Your task to perform on an android device: check battery use Image 0: 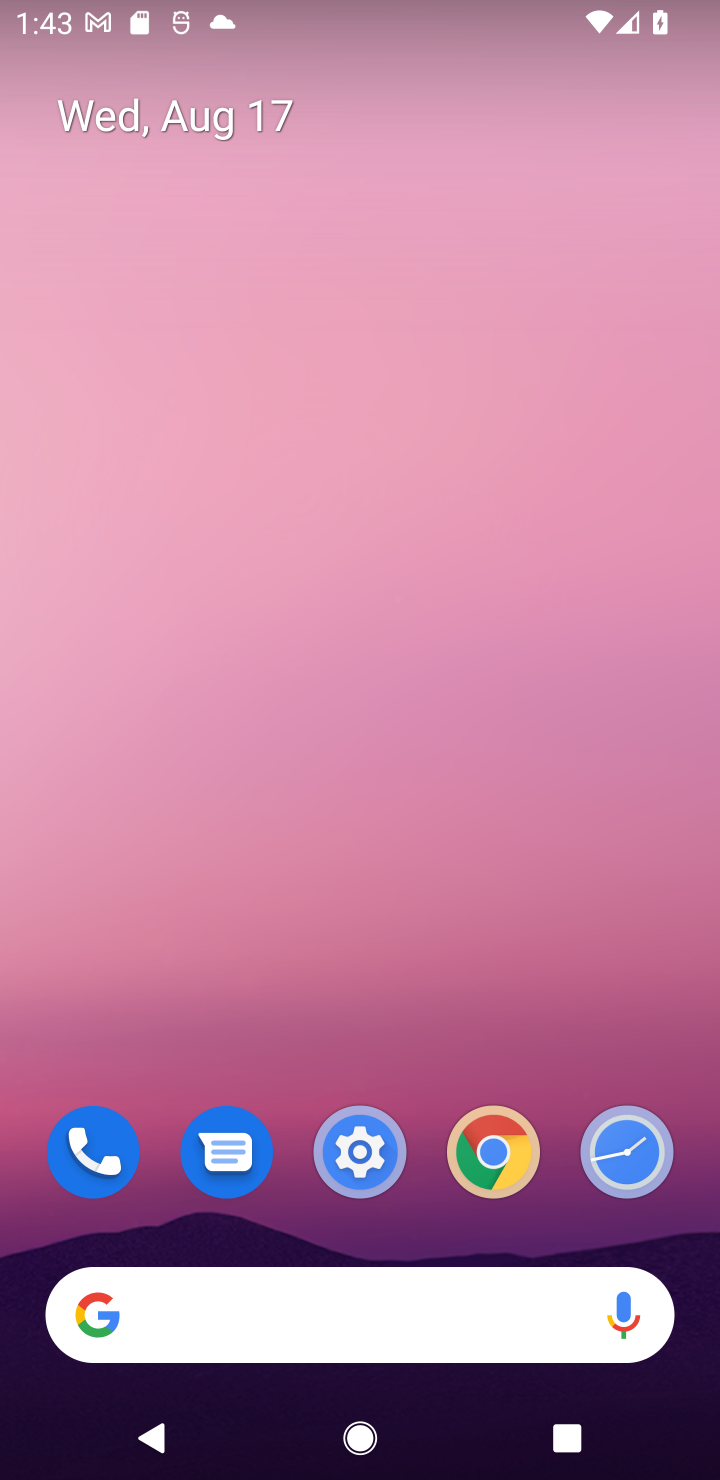
Step 0: drag from (577, 1226) to (105, 88)
Your task to perform on an android device: check battery use Image 1: 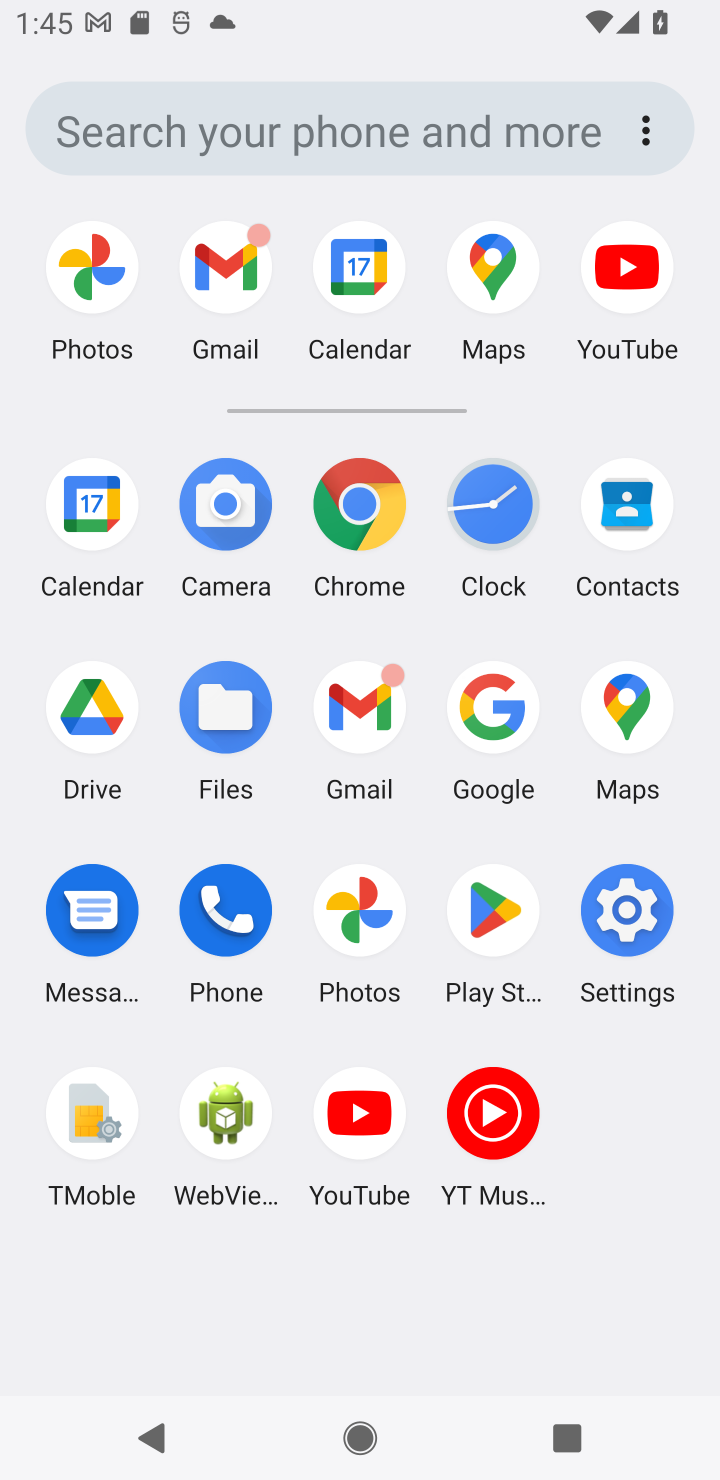
Step 1: click (646, 930)
Your task to perform on an android device: check battery use Image 2: 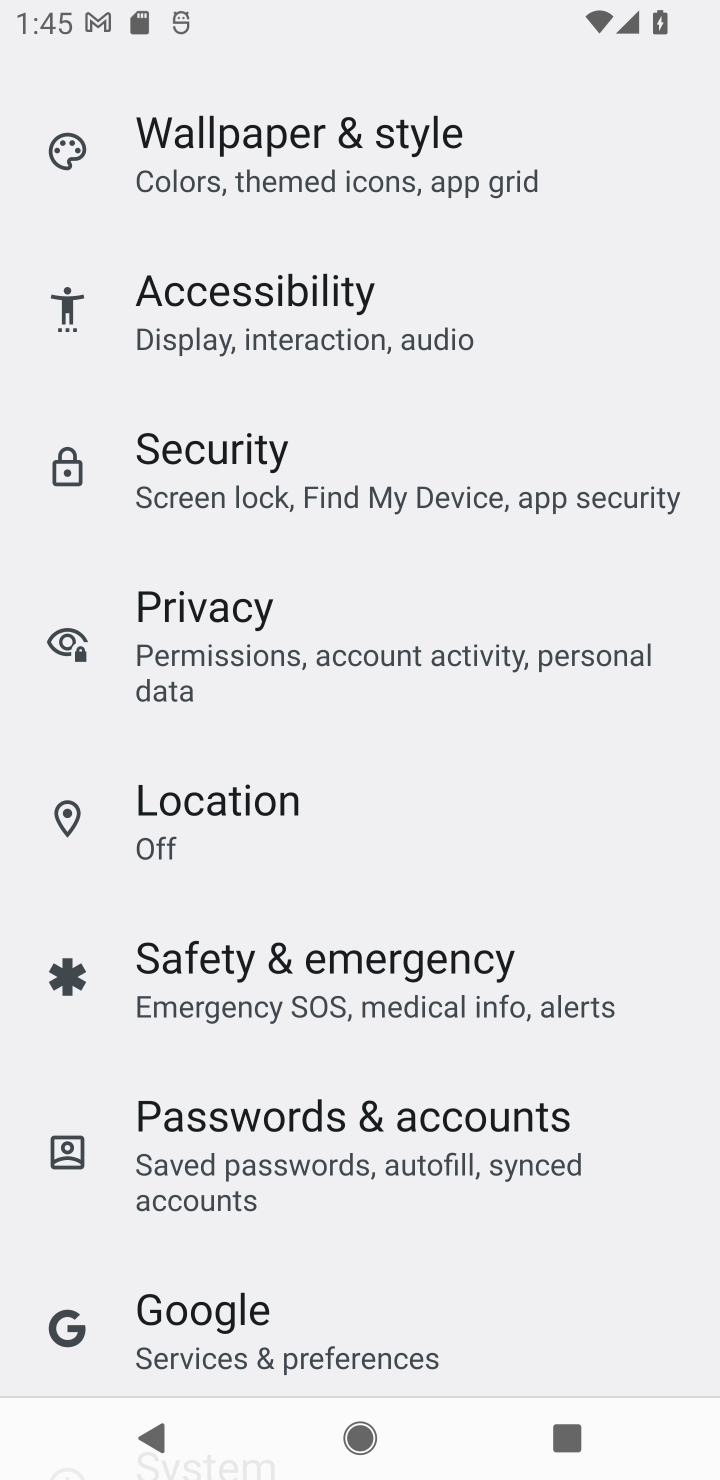
Step 2: drag from (278, 227) to (332, 1258)
Your task to perform on an android device: check battery use Image 3: 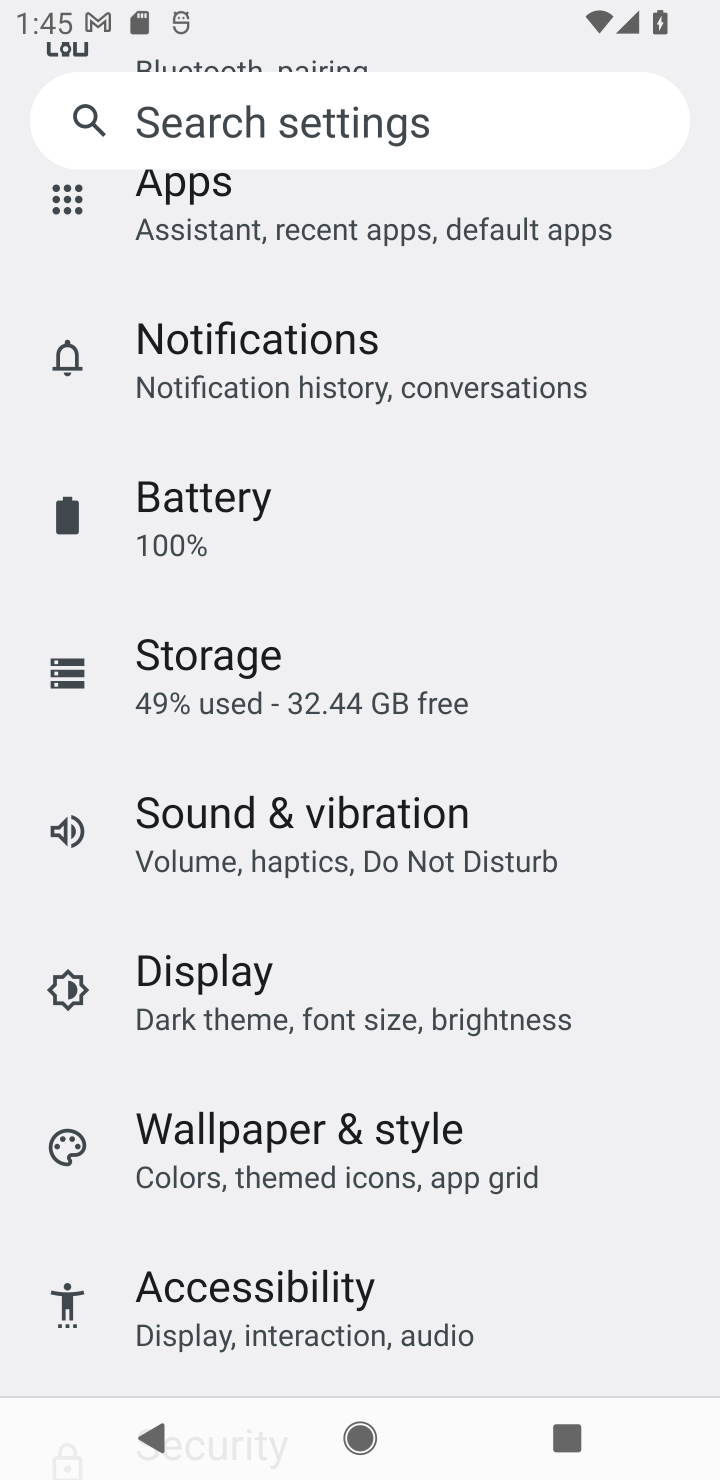
Step 3: click (198, 556)
Your task to perform on an android device: check battery use Image 4: 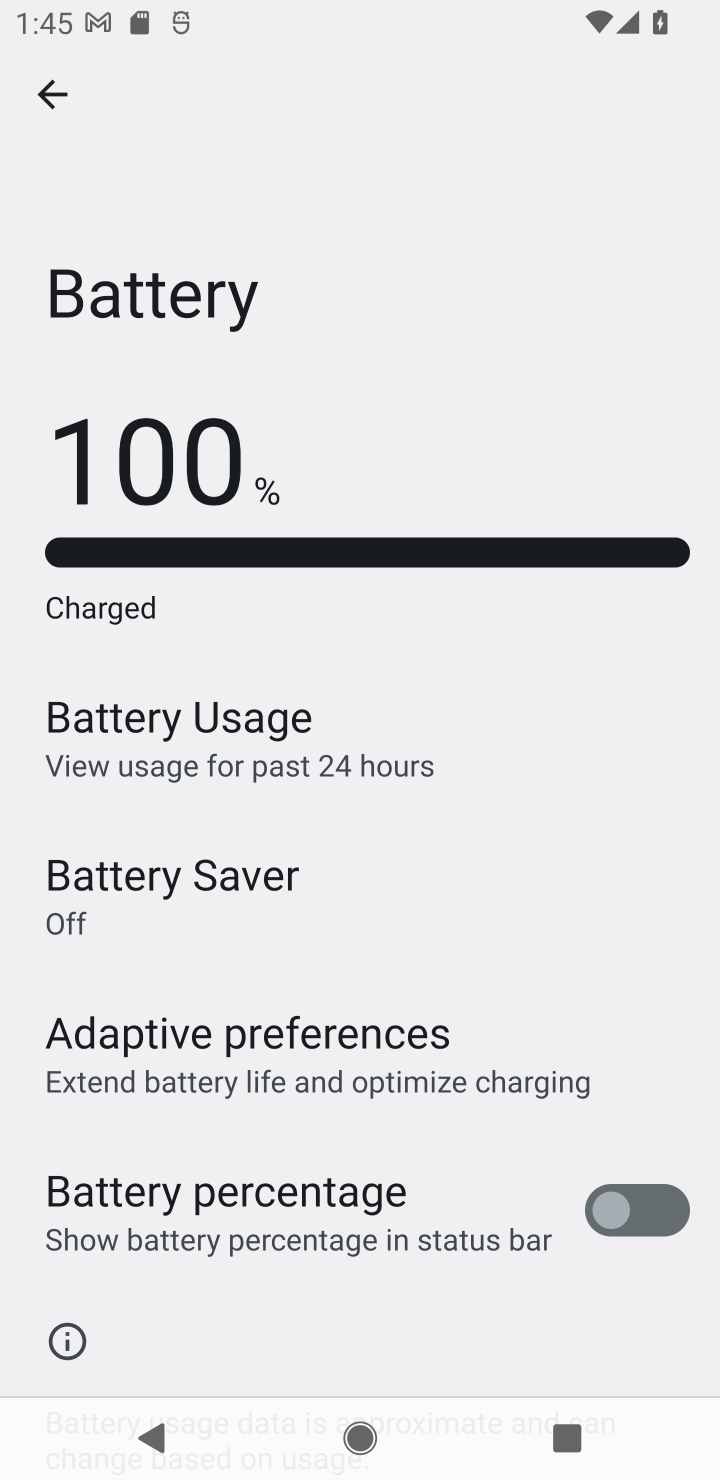
Step 4: click (334, 740)
Your task to perform on an android device: check battery use Image 5: 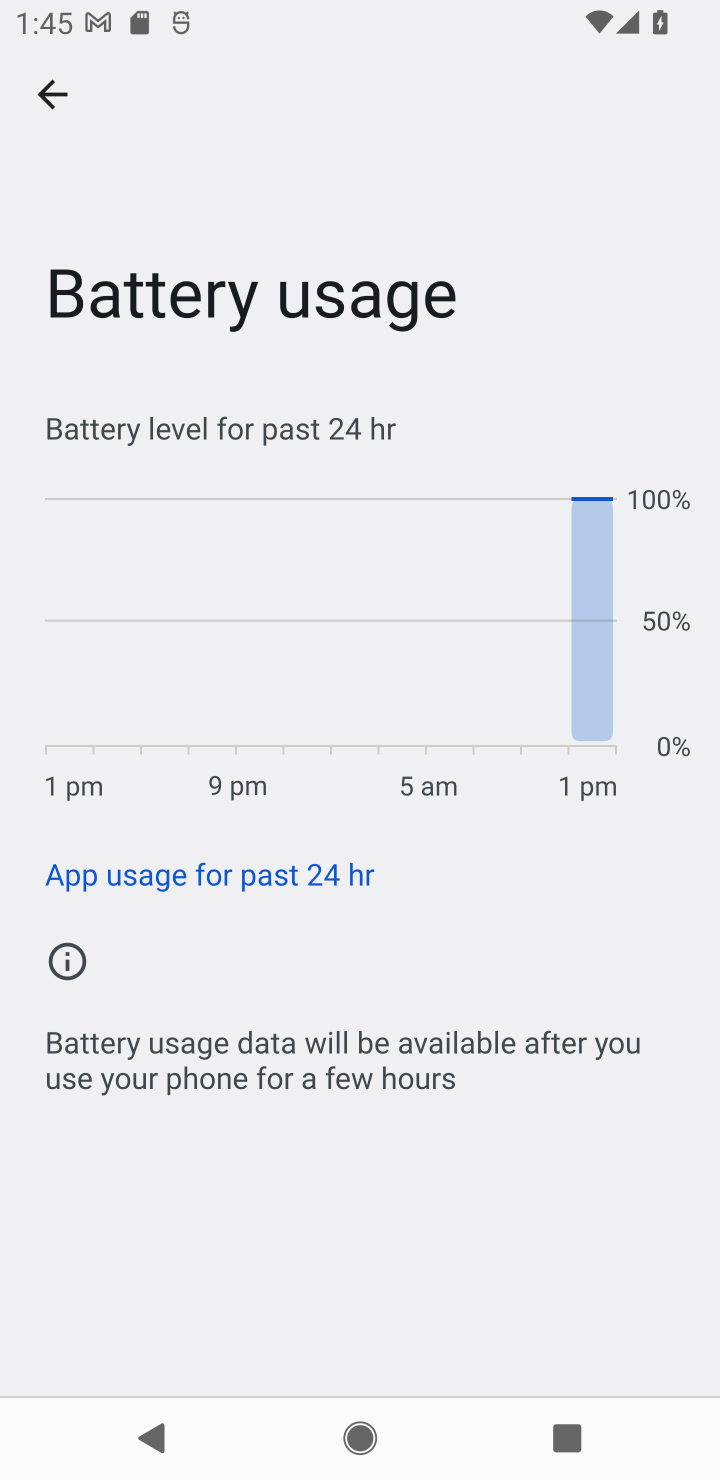
Step 5: task complete